Your task to perform on an android device: Open Google Maps Image 0: 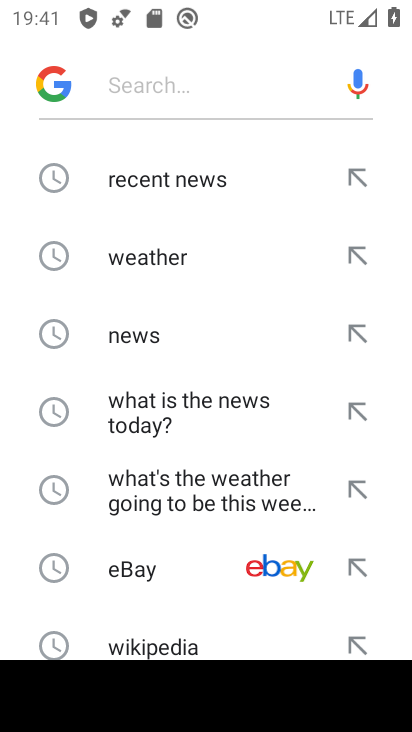
Step 0: press home button
Your task to perform on an android device: Open Google Maps Image 1: 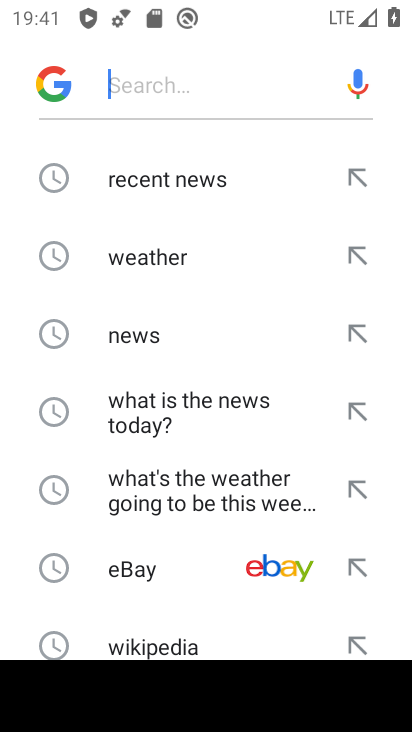
Step 1: press home button
Your task to perform on an android device: Open Google Maps Image 2: 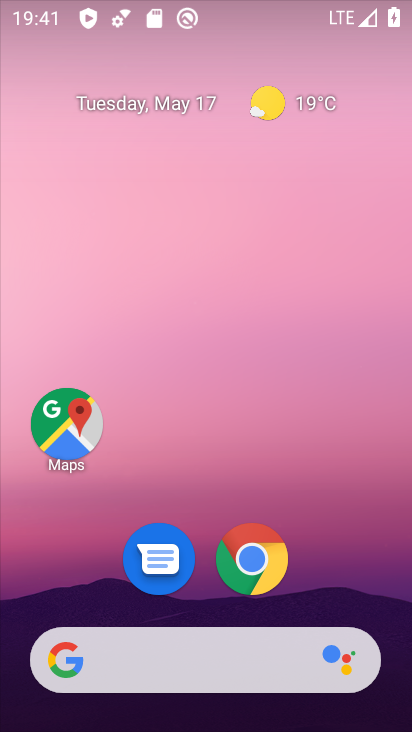
Step 2: drag from (160, 605) to (311, 142)
Your task to perform on an android device: Open Google Maps Image 3: 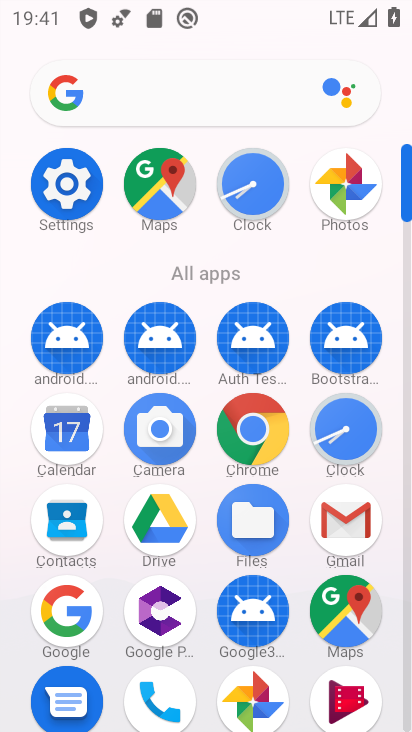
Step 3: drag from (196, 661) to (219, 271)
Your task to perform on an android device: Open Google Maps Image 4: 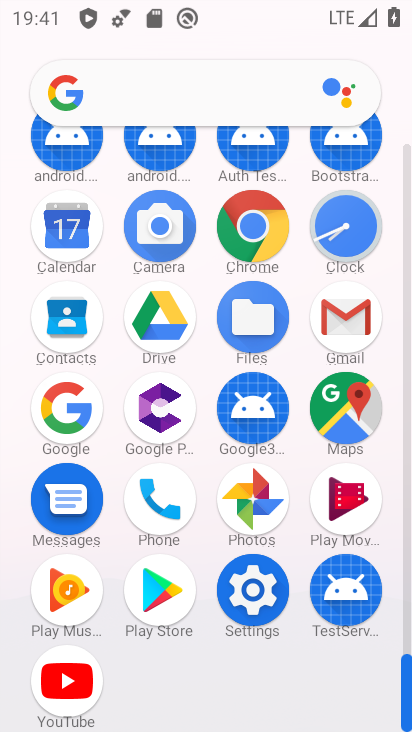
Step 4: click (348, 395)
Your task to perform on an android device: Open Google Maps Image 5: 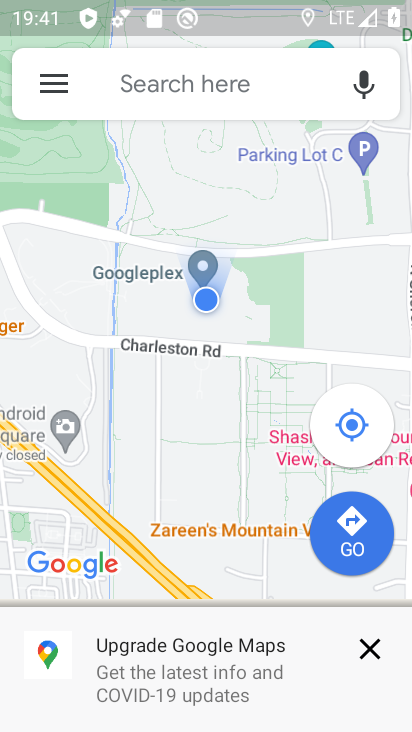
Step 5: task complete